Your task to perform on an android device: Empty the shopping cart on costco. Add "logitech g933" to the cart on costco, then select checkout. Image 0: 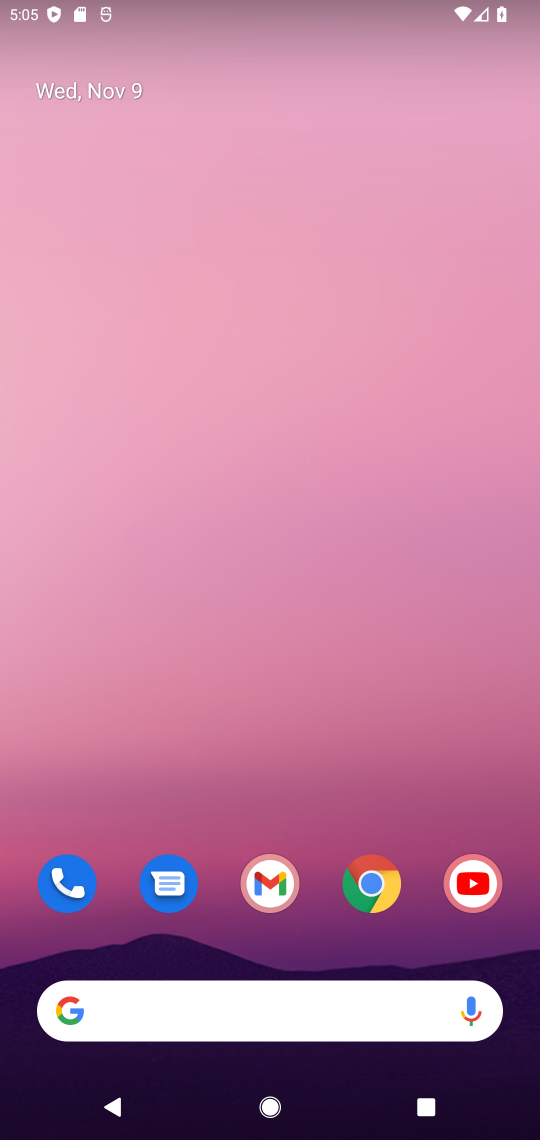
Step 0: click (386, 891)
Your task to perform on an android device: Empty the shopping cart on costco. Add "logitech g933" to the cart on costco, then select checkout. Image 1: 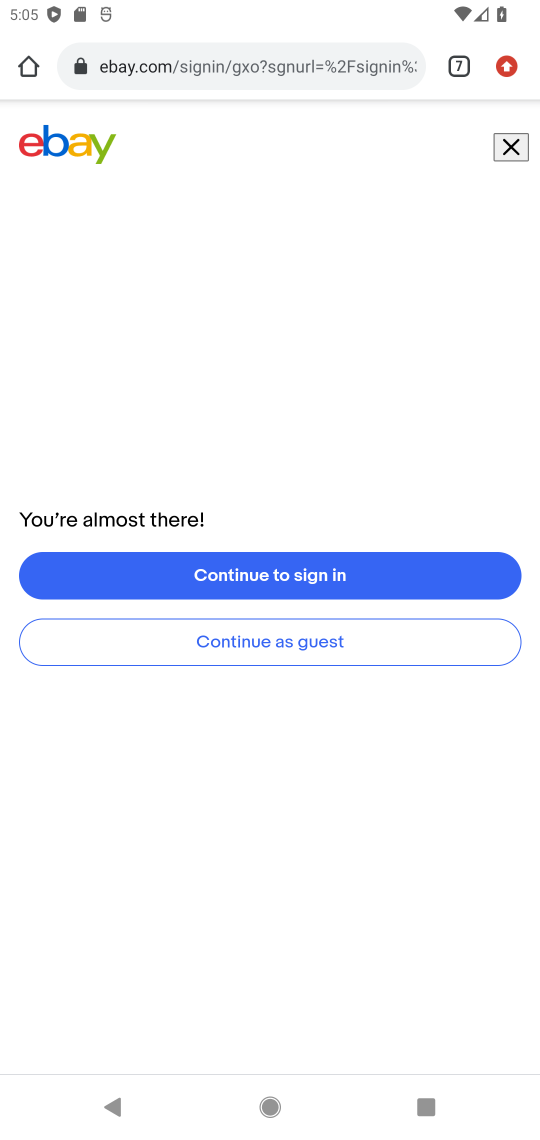
Step 1: click (453, 62)
Your task to perform on an android device: Empty the shopping cart on costco. Add "logitech g933" to the cart on costco, then select checkout. Image 2: 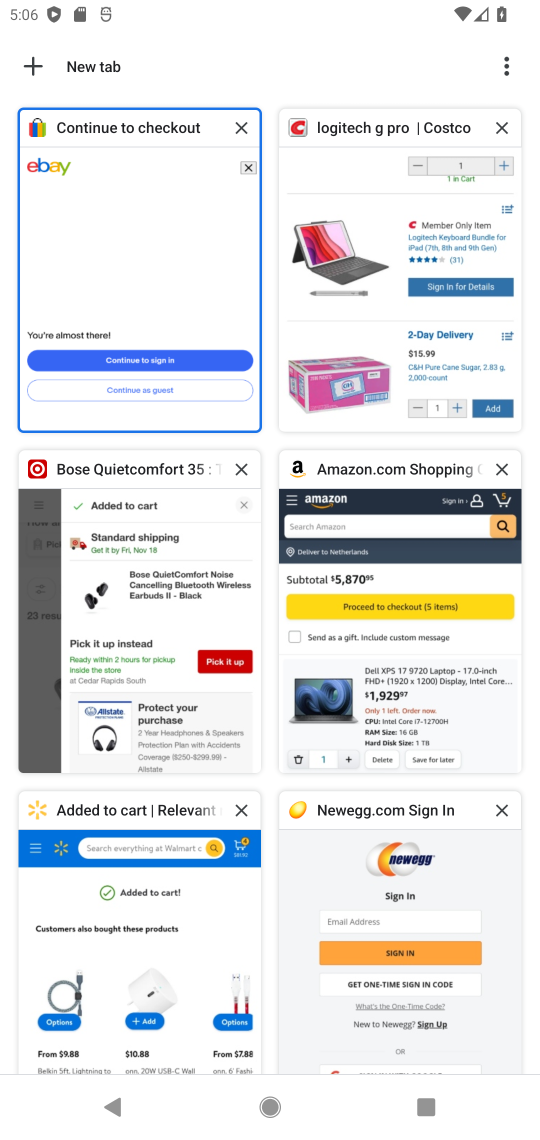
Step 2: click (497, 802)
Your task to perform on an android device: Empty the shopping cart on costco. Add "logitech g933" to the cart on costco, then select checkout. Image 3: 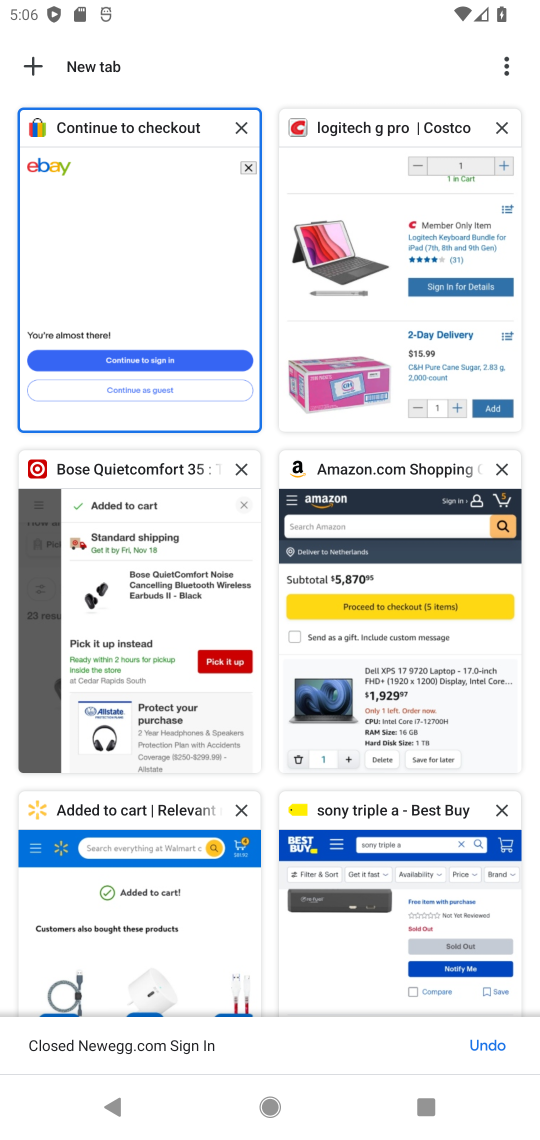
Step 3: click (341, 189)
Your task to perform on an android device: Empty the shopping cart on costco. Add "logitech g933" to the cart on costco, then select checkout. Image 4: 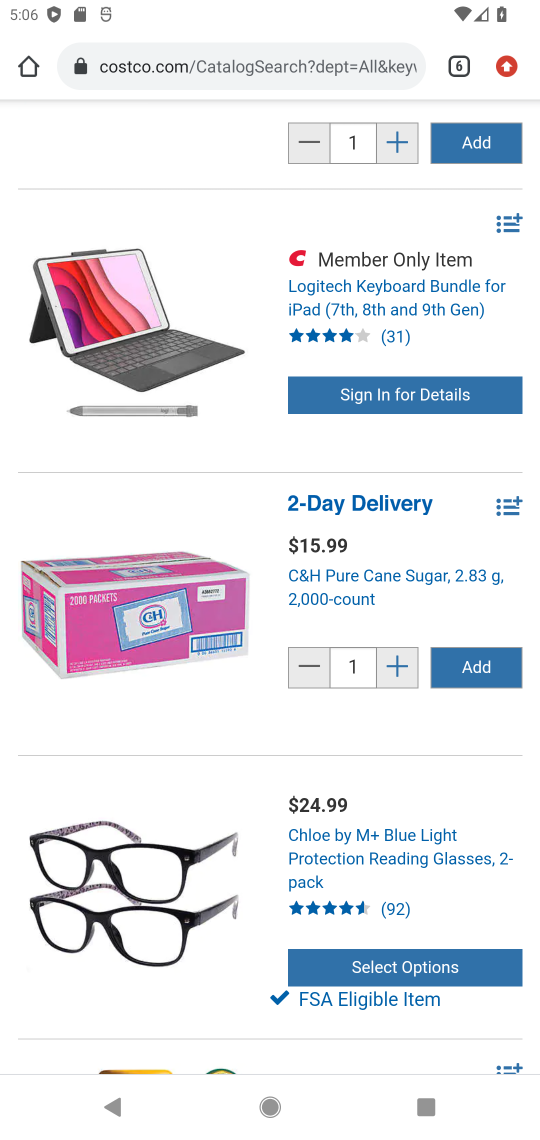
Step 4: drag from (405, 188) to (357, 654)
Your task to perform on an android device: Empty the shopping cart on costco. Add "logitech g933" to the cart on costco, then select checkout. Image 5: 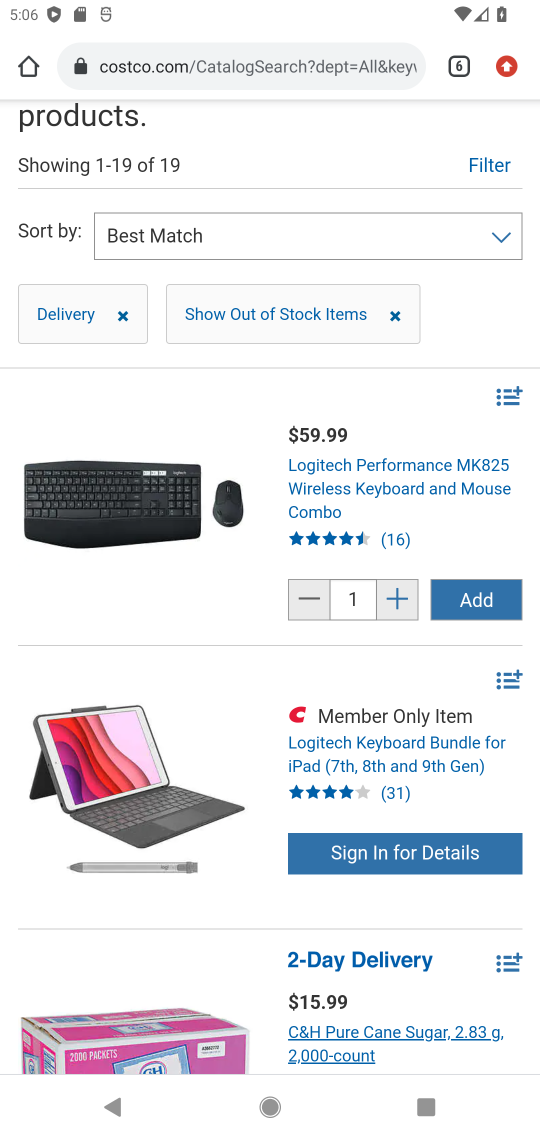
Step 5: drag from (369, 150) to (357, 627)
Your task to perform on an android device: Empty the shopping cart on costco. Add "logitech g933" to the cart on costco, then select checkout. Image 6: 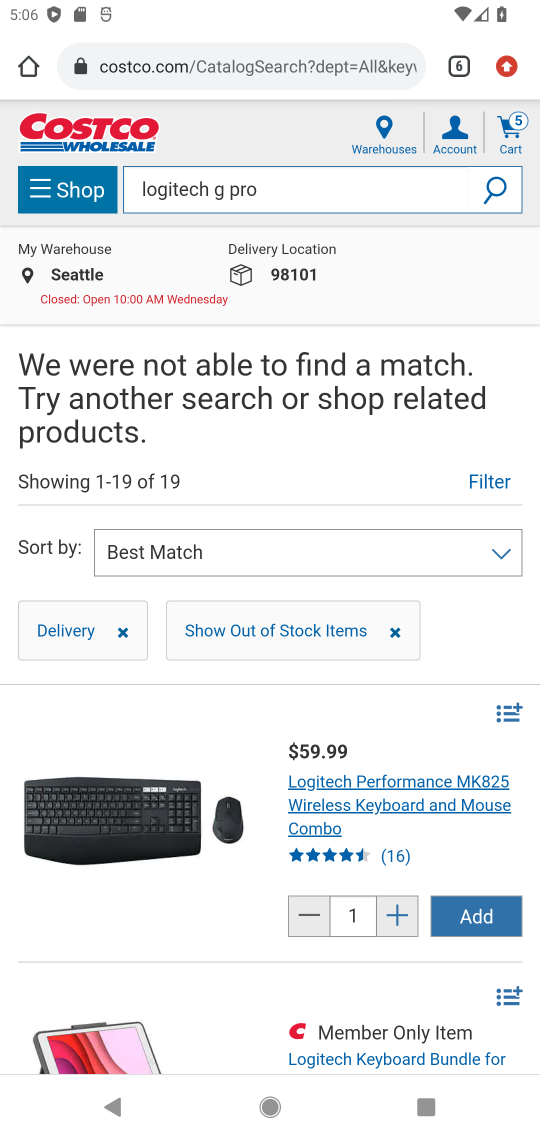
Step 6: click (517, 134)
Your task to perform on an android device: Empty the shopping cart on costco. Add "logitech g933" to the cart on costco, then select checkout. Image 7: 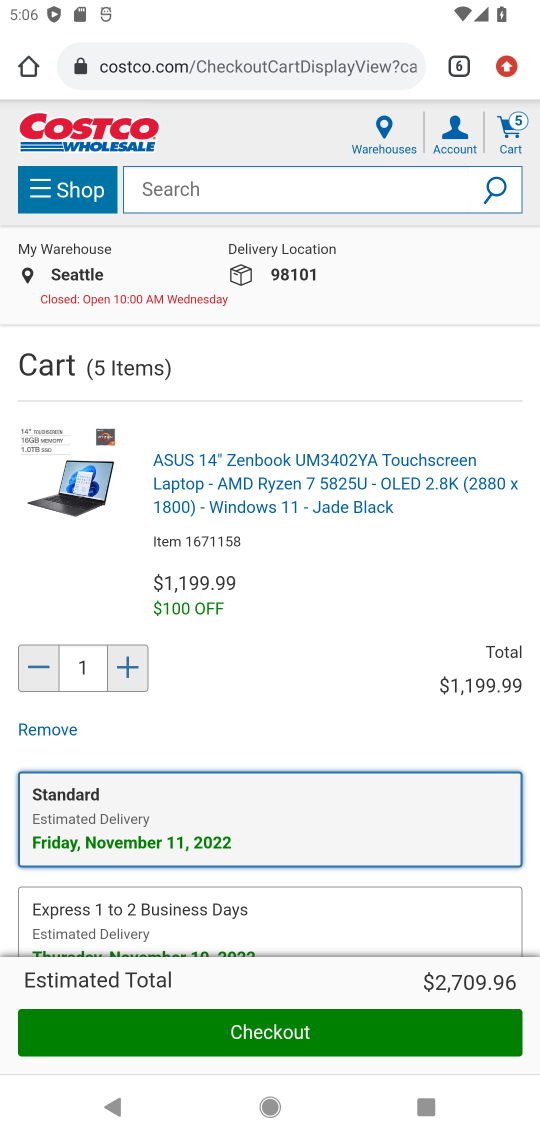
Step 7: click (62, 727)
Your task to perform on an android device: Empty the shopping cart on costco. Add "logitech g933" to the cart on costco, then select checkout. Image 8: 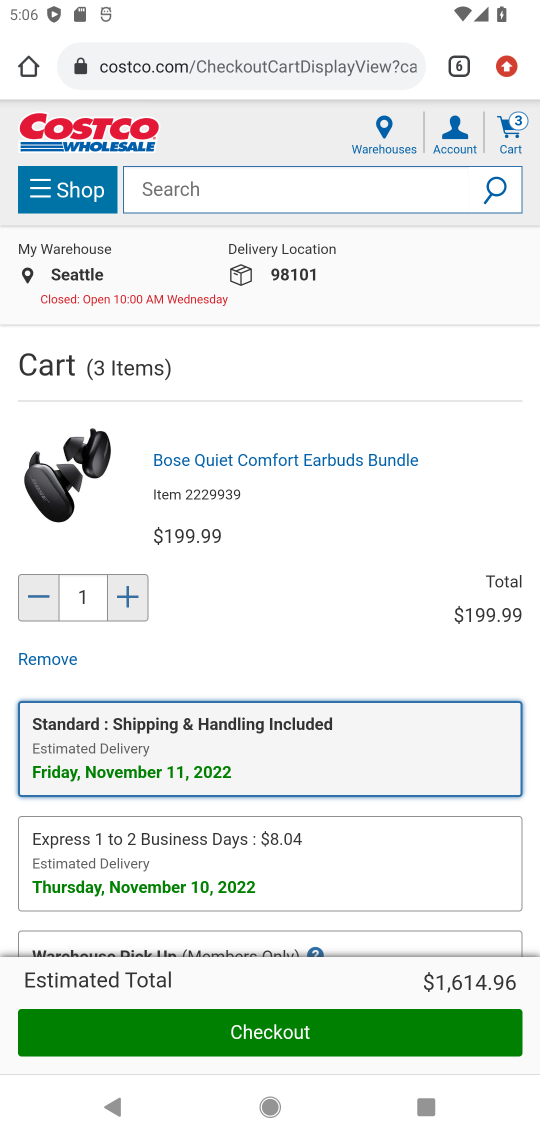
Step 8: click (56, 662)
Your task to perform on an android device: Empty the shopping cart on costco. Add "logitech g933" to the cart on costco, then select checkout. Image 9: 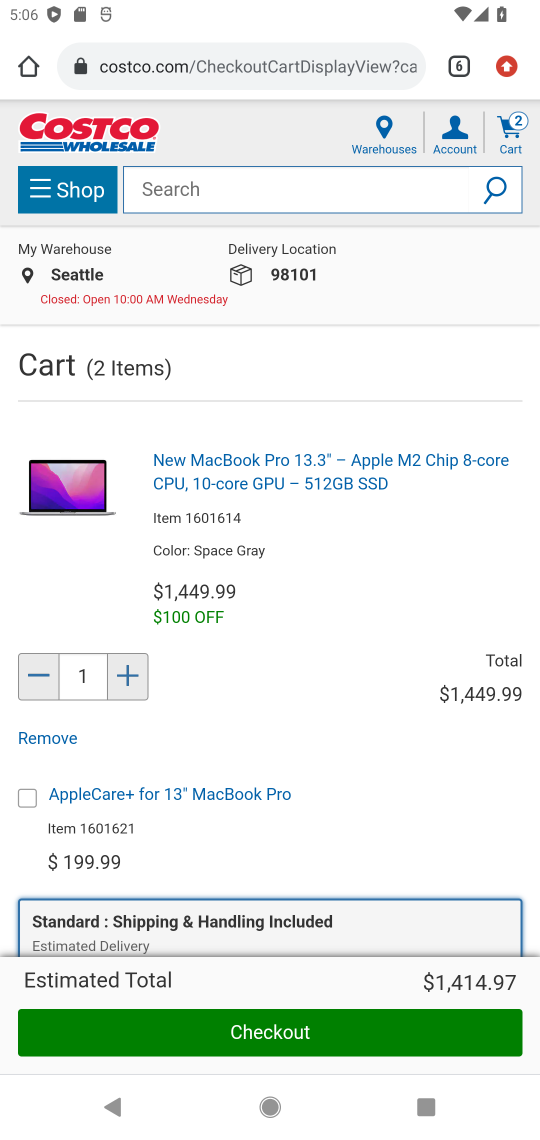
Step 9: click (53, 737)
Your task to perform on an android device: Empty the shopping cart on costco. Add "logitech g933" to the cart on costco, then select checkout. Image 10: 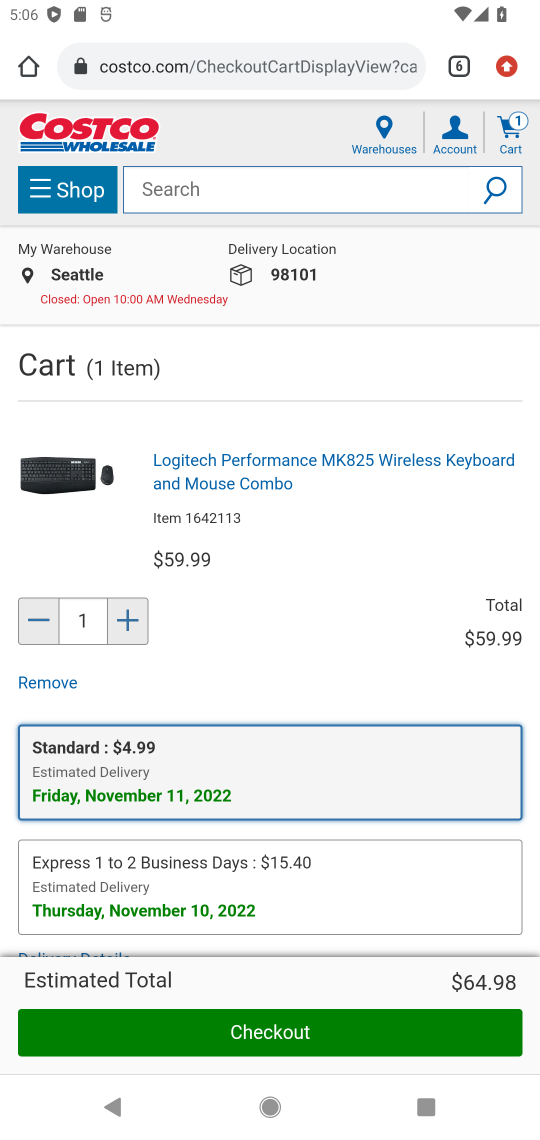
Step 10: click (56, 683)
Your task to perform on an android device: Empty the shopping cart on costco. Add "logitech g933" to the cart on costco, then select checkout. Image 11: 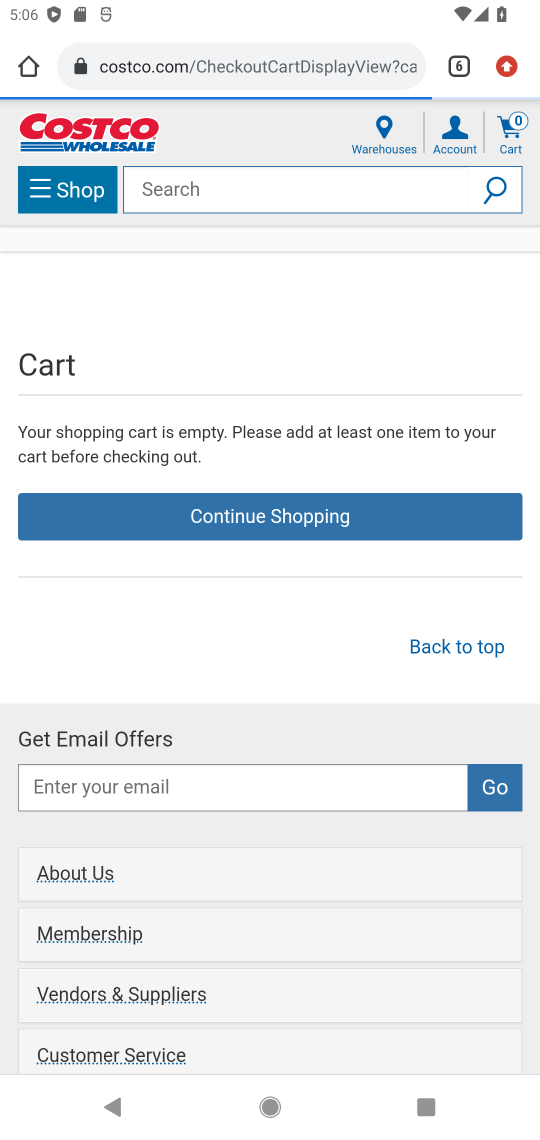
Step 11: click (253, 194)
Your task to perform on an android device: Empty the shopping cart on costco. Add "logitech g933" to the cart on costco, then select checkout. Image 12: 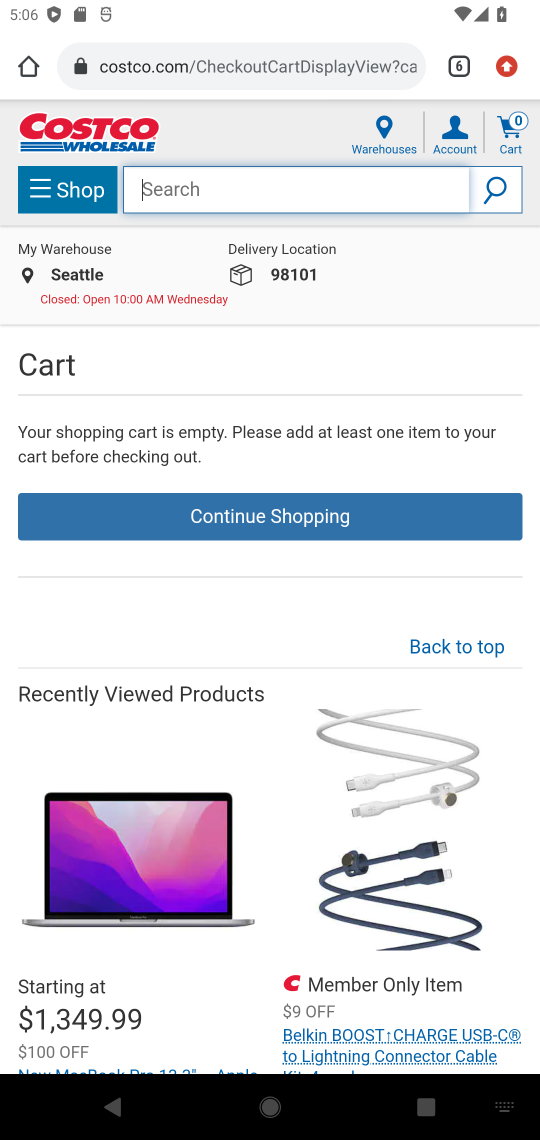
Step 12: type "logitech g933"
Your task to perform on an android device: Empty the shopping cart on costco. Add "logitech g933" to the cart on costco, then select checkout. Image 13: 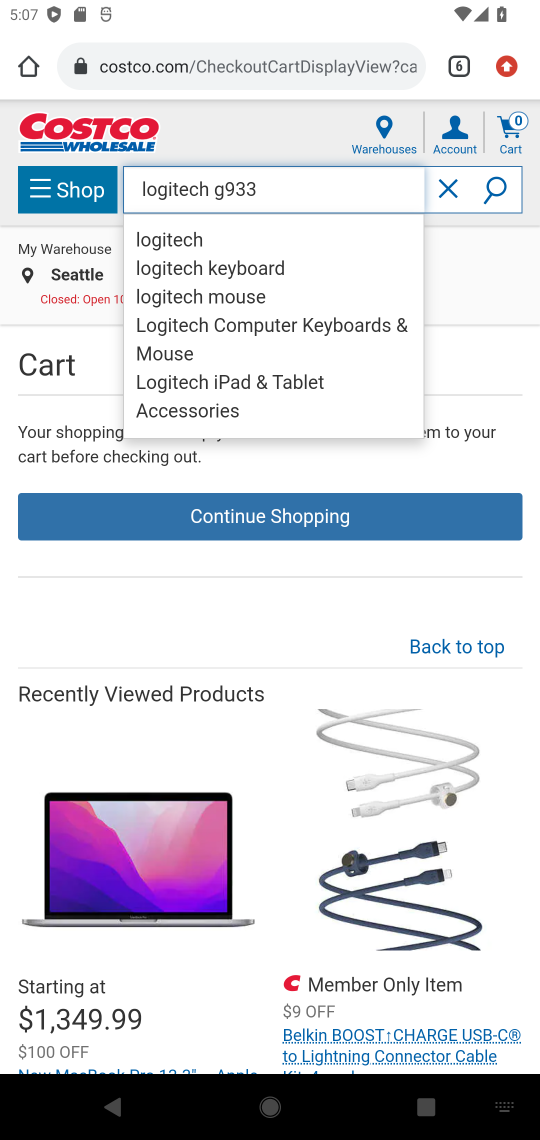
Step 13: click (244, 261)
Your task to perform on an android device: Empty the shopping cart on costco. Add "logitech g933" to the cart on costco, then select checkout. Image 14: 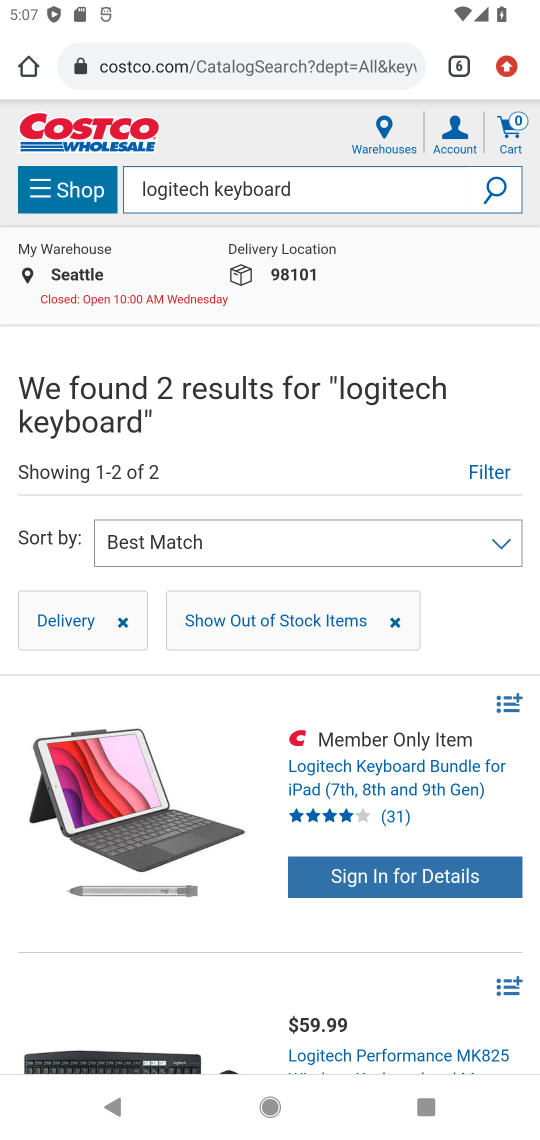
Step 14: drag from (410, 998) to (491, 60)
Your task to perform on an android device: Empty the shopping cart on costco. Add "logitech g933" to the cart on costco, then select checkout. Image 15: 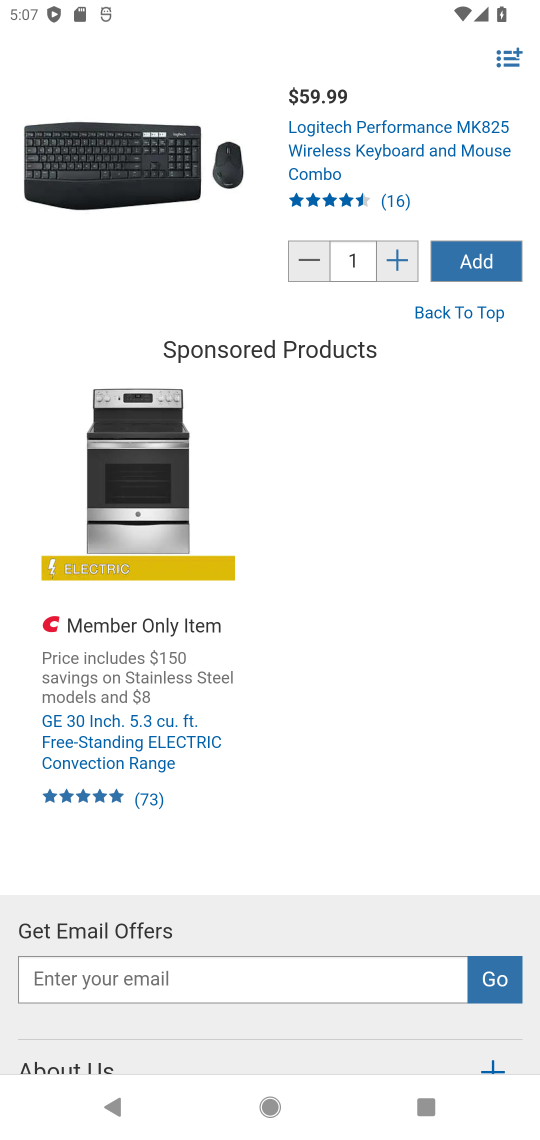
Step 15: drag from (369, 481) to (390, 1009)
Your task to perform on an android device: Empty the shopping cart on costco. Add "logitech g933" to the cart on costco, then select checkout. Image 16: 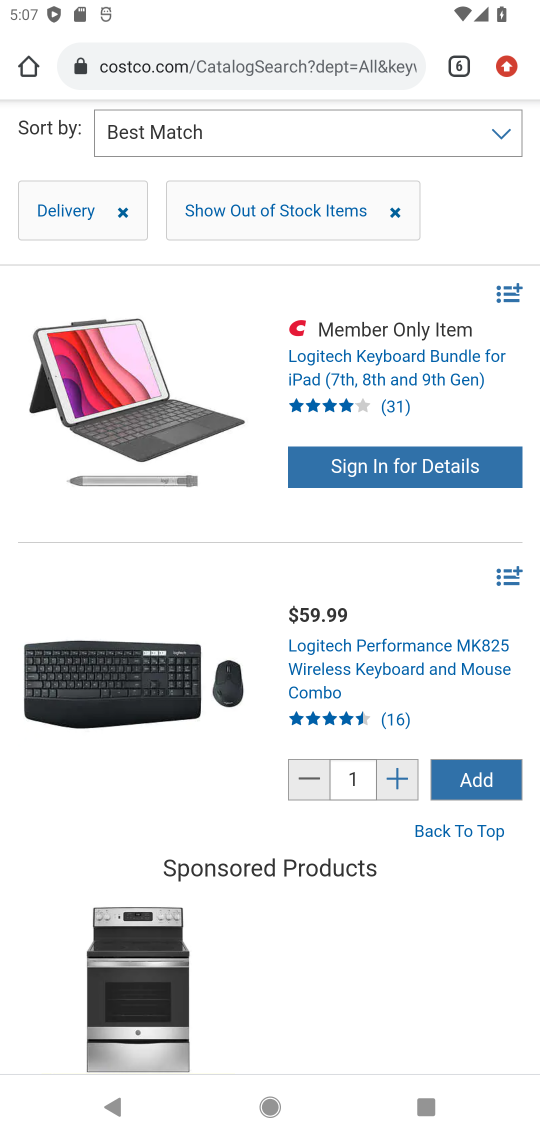
Step 16: click (333, 361)
Your task to perform on an android device: Empty the shopping cart on costco. Add "logitech g933" to the cart on costco, then select checkout. Image 17: 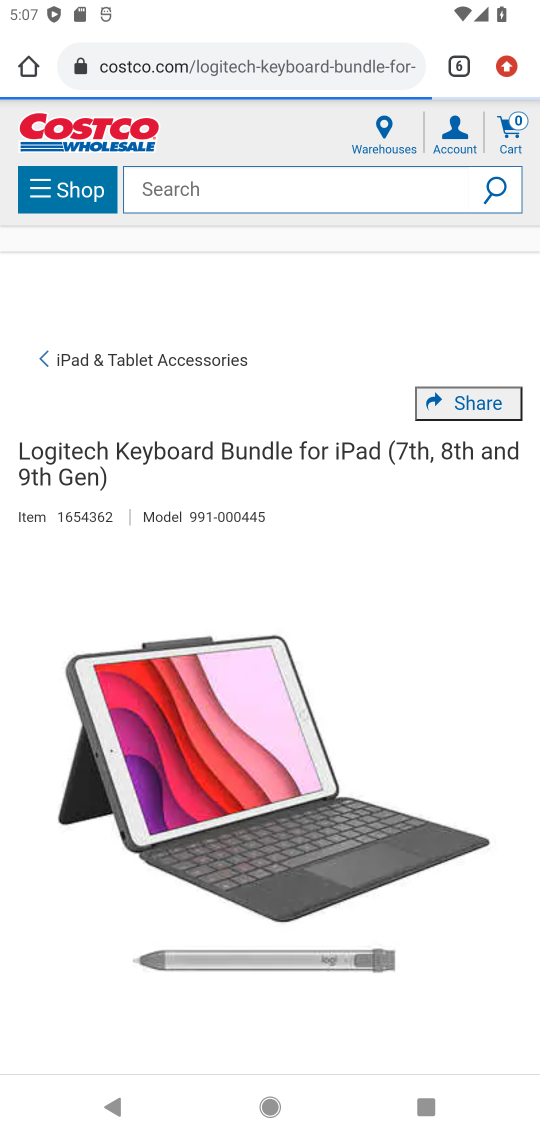
Step 17: task complete